Your task to perform on an android device: Search for runner rugs on Crate & Barrel Image 0: 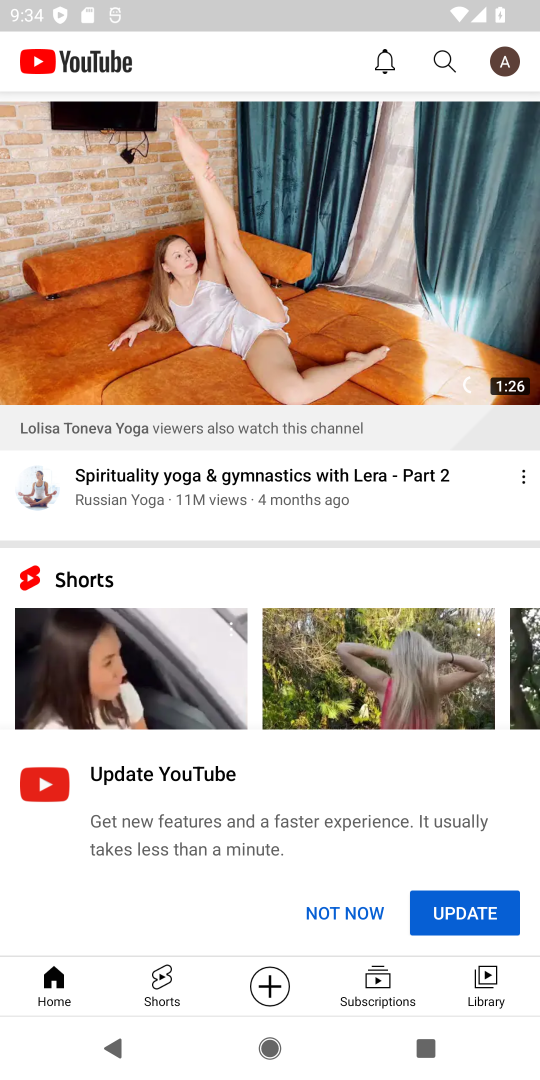
Step 0: press home button
Your task to perform on an android device: Search for runner rugs on Crate & Barrel Image 1: 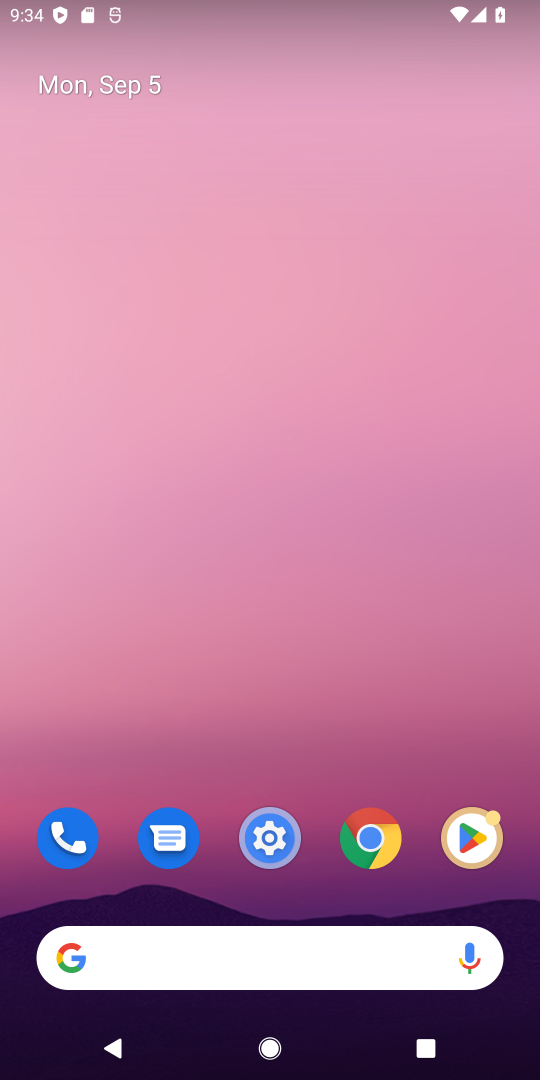
Step 1: click (217, 929)
Your task to perform on an android device: Search for runner rugs on Crate & Barrel Image 2: 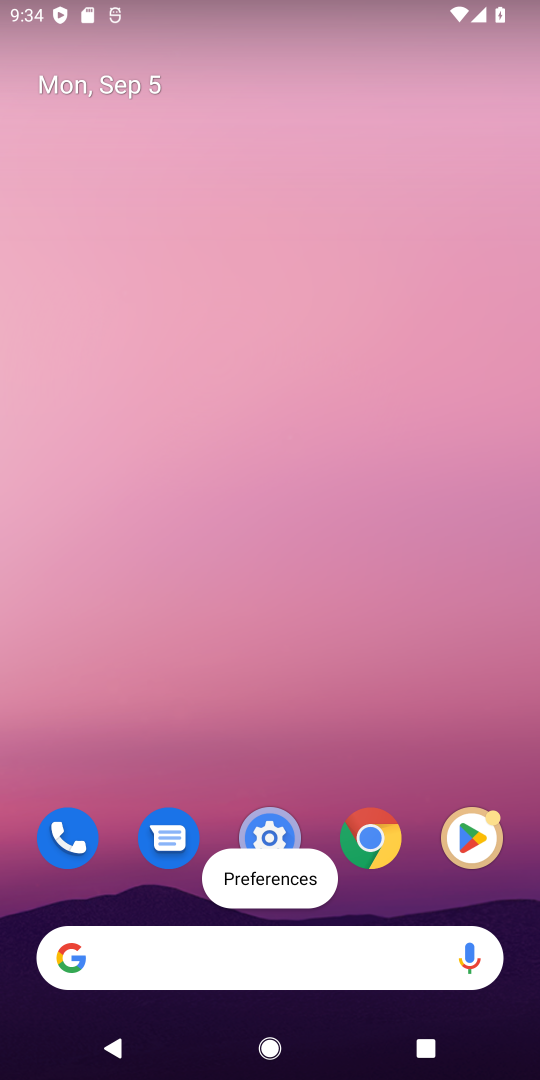
Step 2: click (237, 941)
Your task to perform on an android device: Search for runner rugs on Crate & Barrel Image 3: 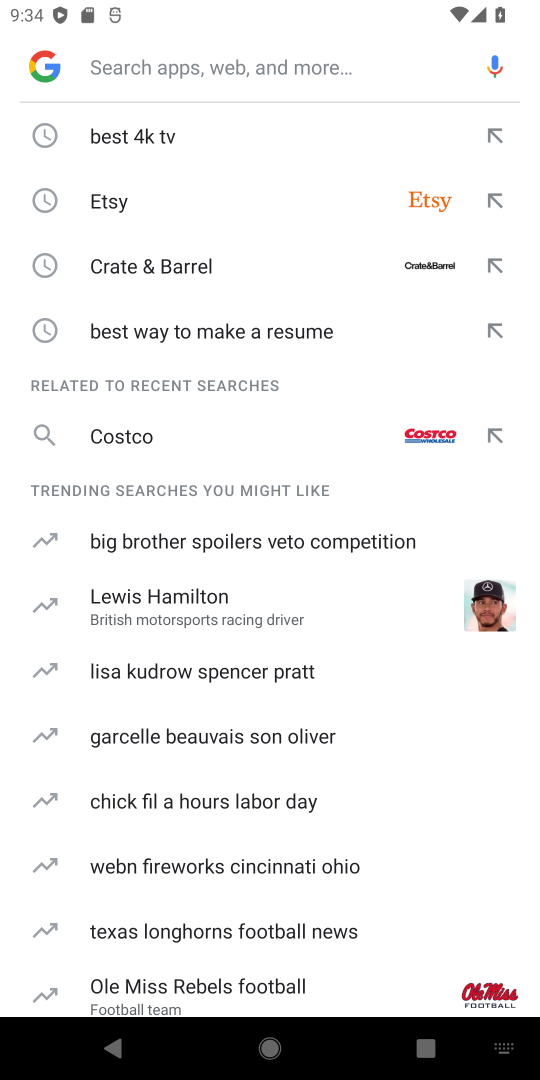
Step 3: click (220, 263)
Your task to perform on an android device: Search for runner rugs on Crate & Barrel Image 4: 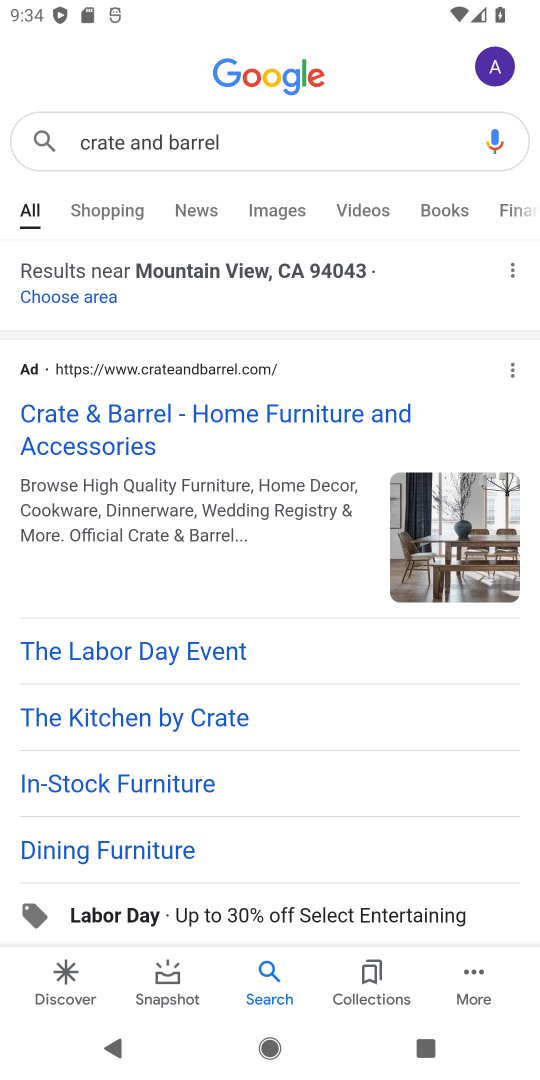
Step 4: drag from (277, 745) to (347, 259)
Your task to perform on an android device: Search for runner rugs on Crate & Barrel Image 5: 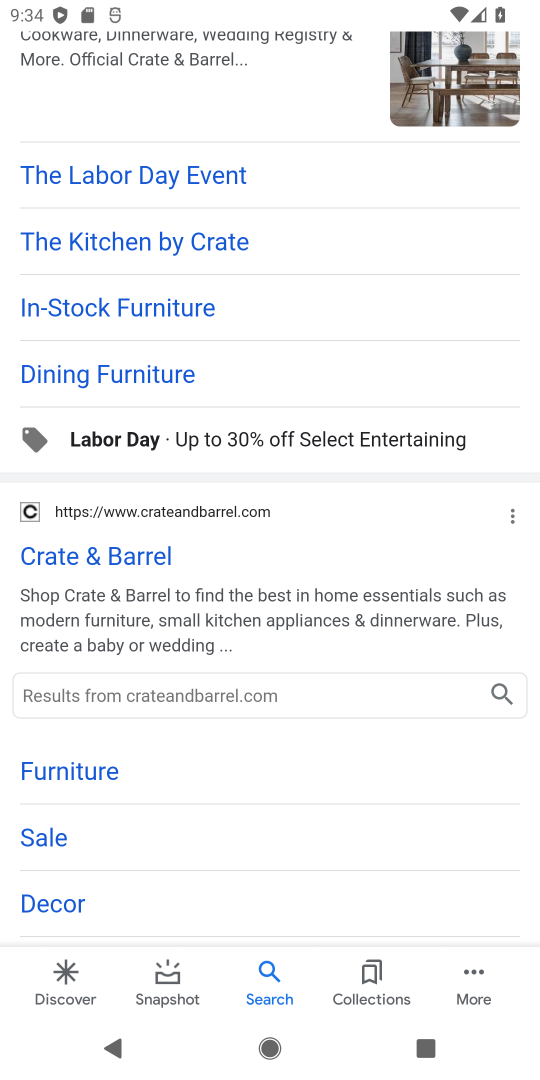
Step 5: click (117, 542)
Your task to perform on an android device: Search for runner rugs on Crate & Barrel Image 6: 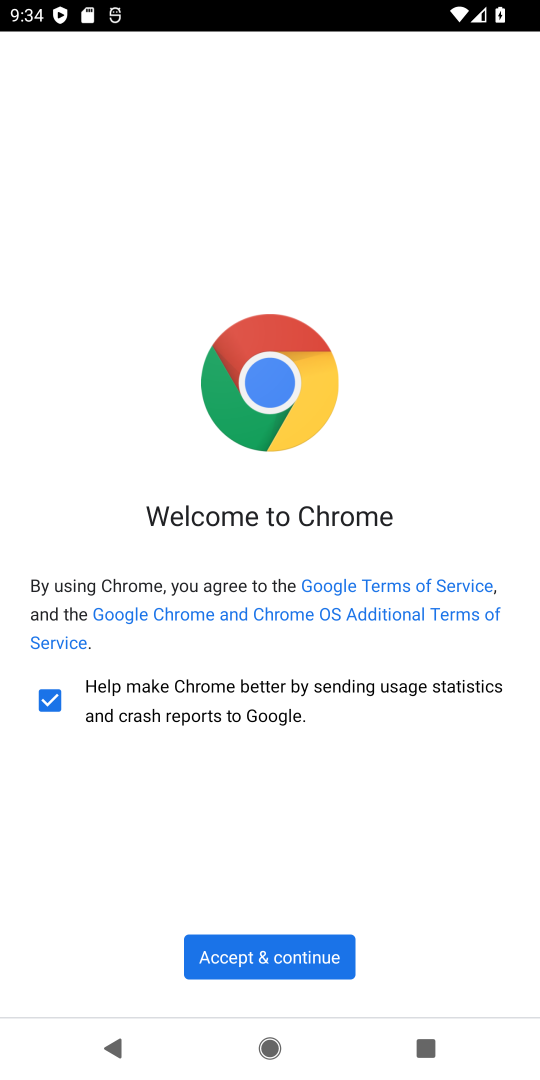
Step 6: click (306, 941)
Your task to perform on an android device: Search for runner rugs on Crate & Barrel Image 7: 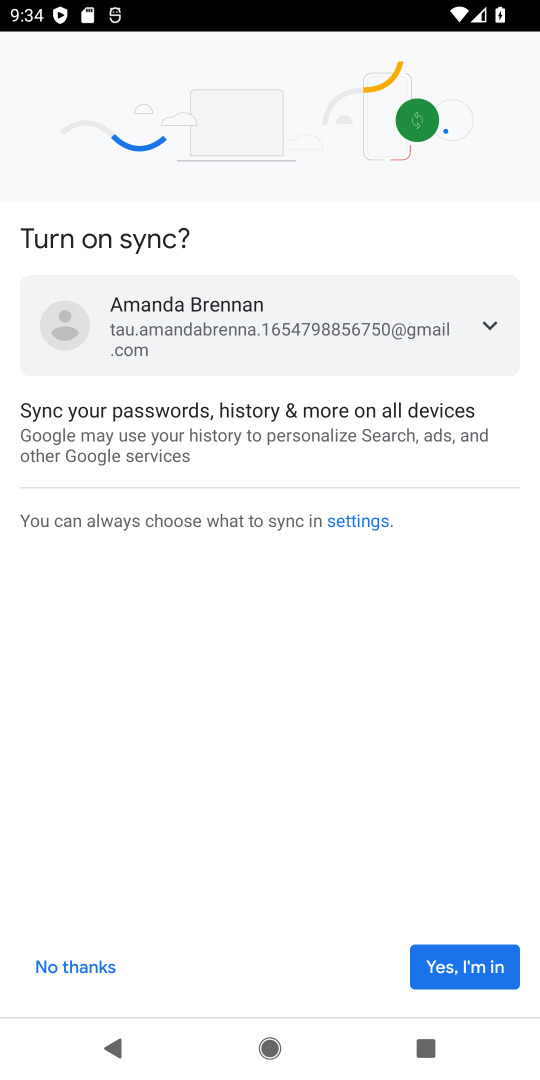
Step 7: click (408, 952)
Your task to perform on an android device: Search for runner rugs on Crate & Barrel Image 8: 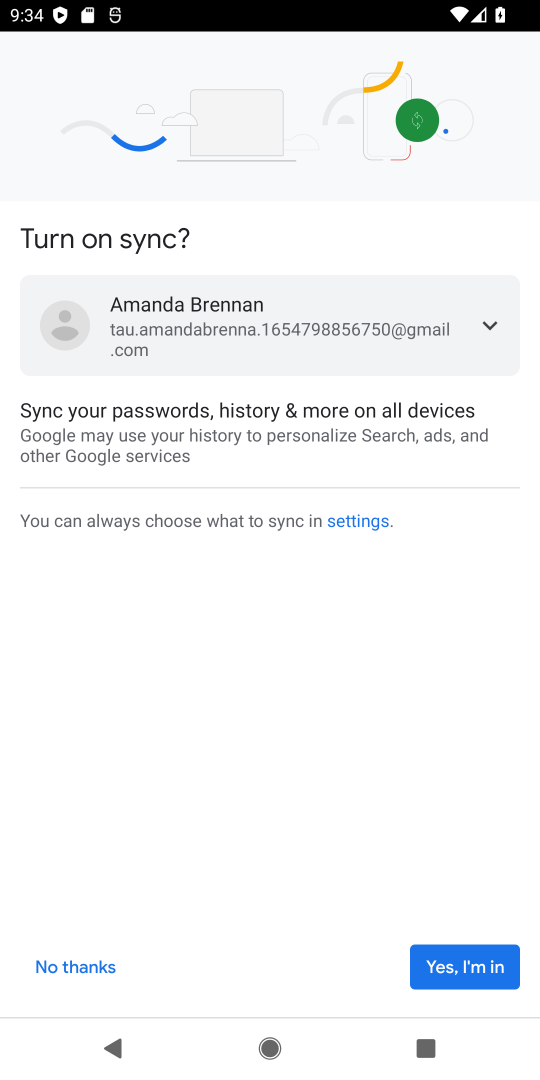
Step 8: click (462, 948)
Your task to perform on an android device: Search for runner rugs on Crate & Barrel Image 9: 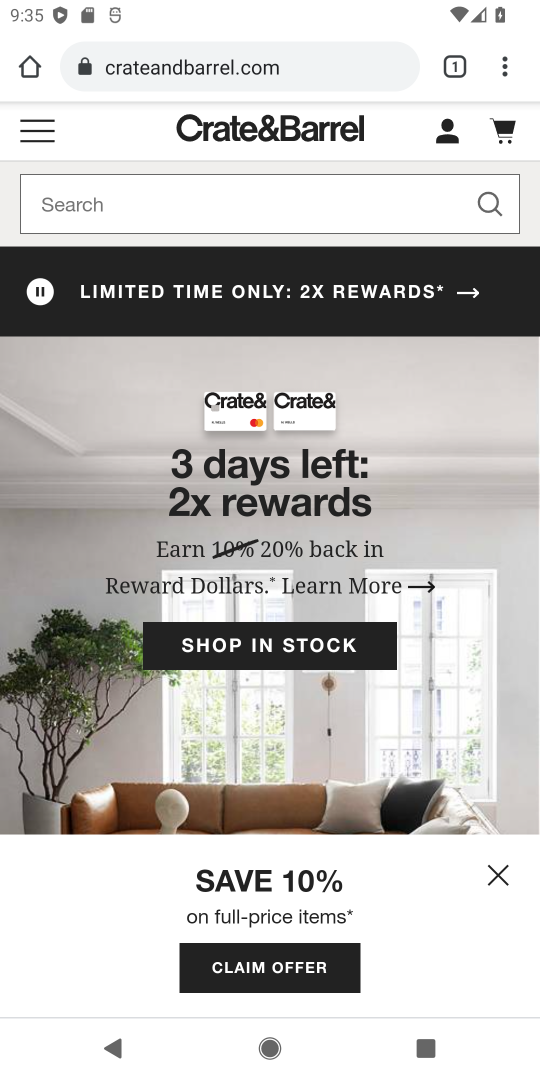
Step 9: click (293, 204)
Your task to perform on an android device: Search for runner rugs on Crate & Barrel Image 10: 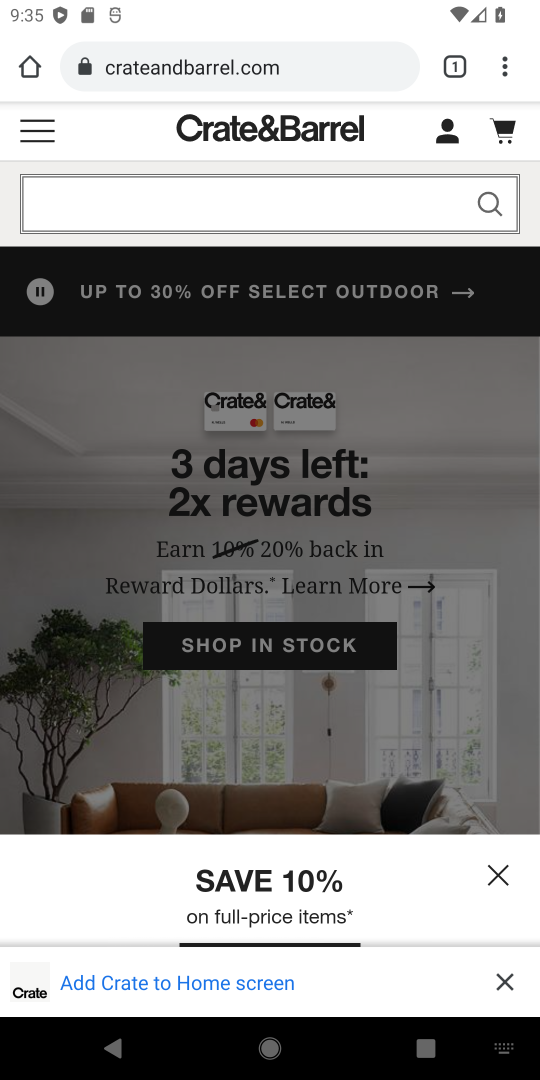
Step 10: type "runner rugs"
Your task to perform on an android device: Search for runner rugs on Crate & Barrel Image 11: 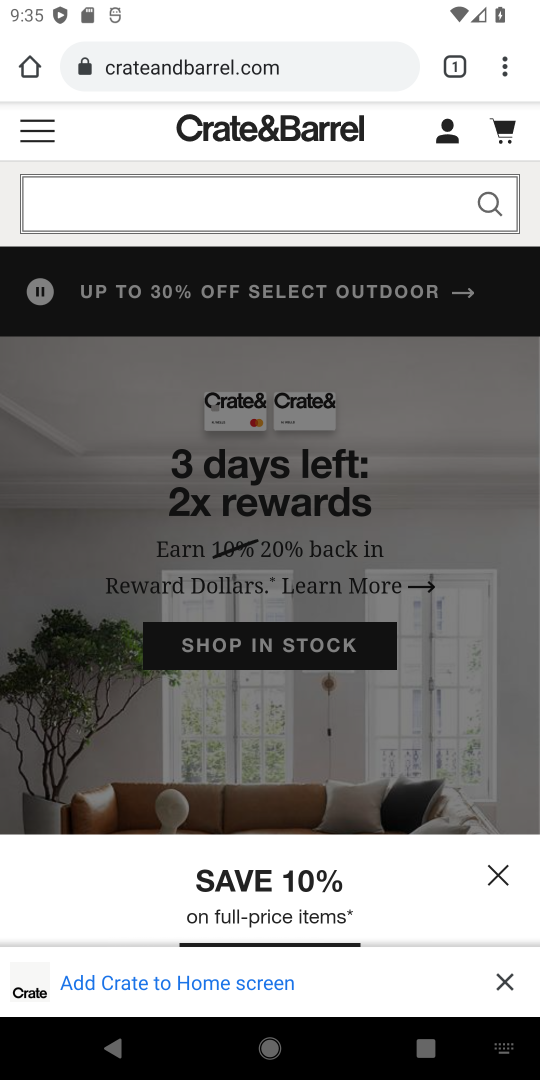
Step 11: type ""
Your task to perform on an android device: Search for runner rugs on Crate & Barrel Image 12: 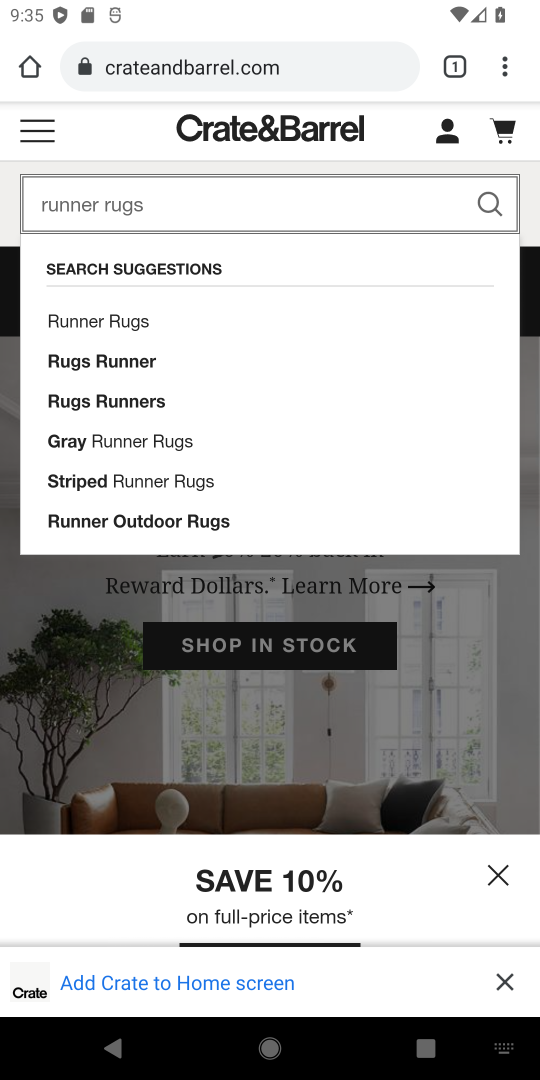
Step 12: click (176, 321)
Your task to perform on an android device: Search for runner rugs on Crate & Barrel Image 13: 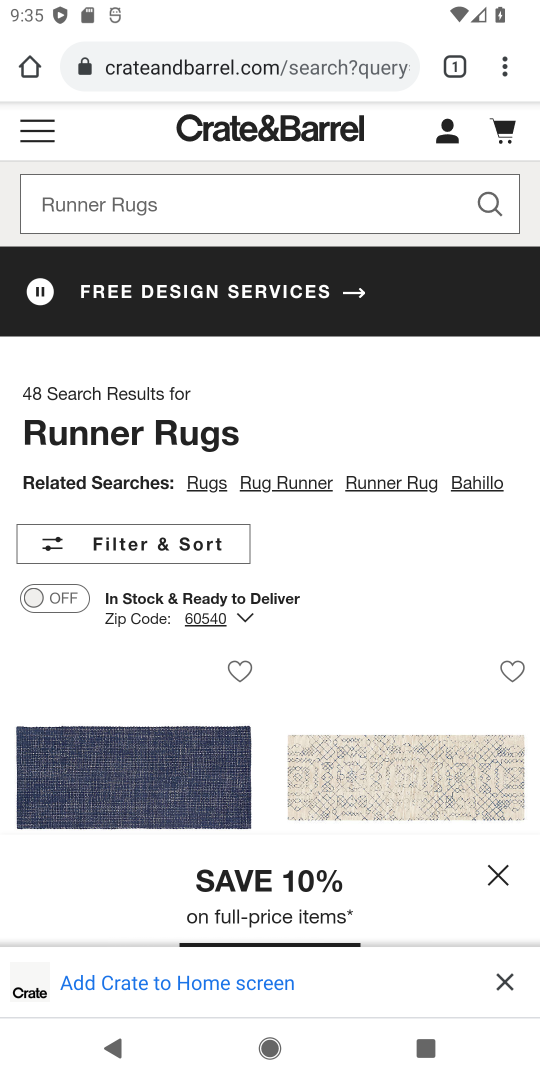
Step 13: task complete